Your task to perform on an android device: uninstall "Airtel Thanks" Image 0: 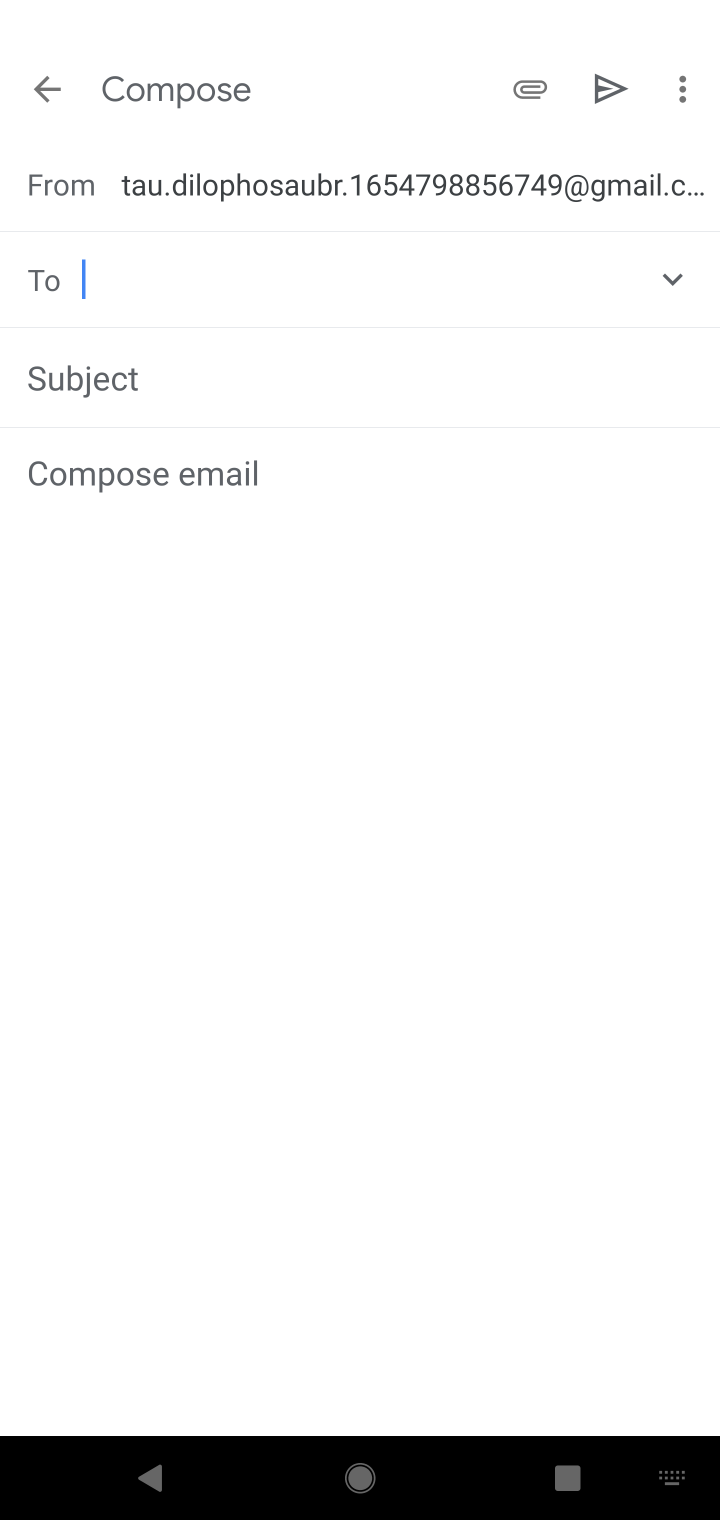
Step 0: press home button
Your task to perform on an android device: uninstall "Airtel Thanks" Image 1: 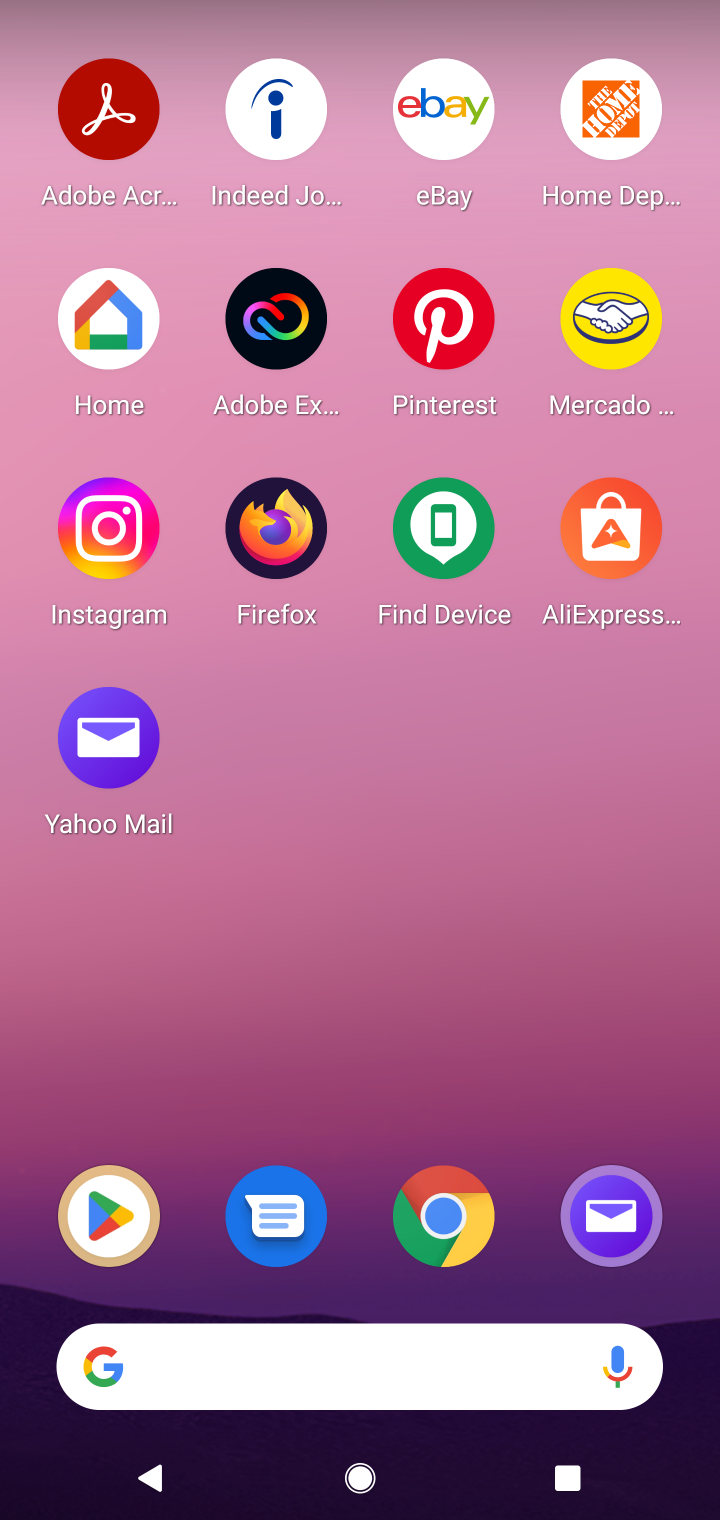
Step 1: drag from (373, 1313) to (379, 140)
Your task to perform on an android device: uninstall "Airtel Thanks" Image 2: 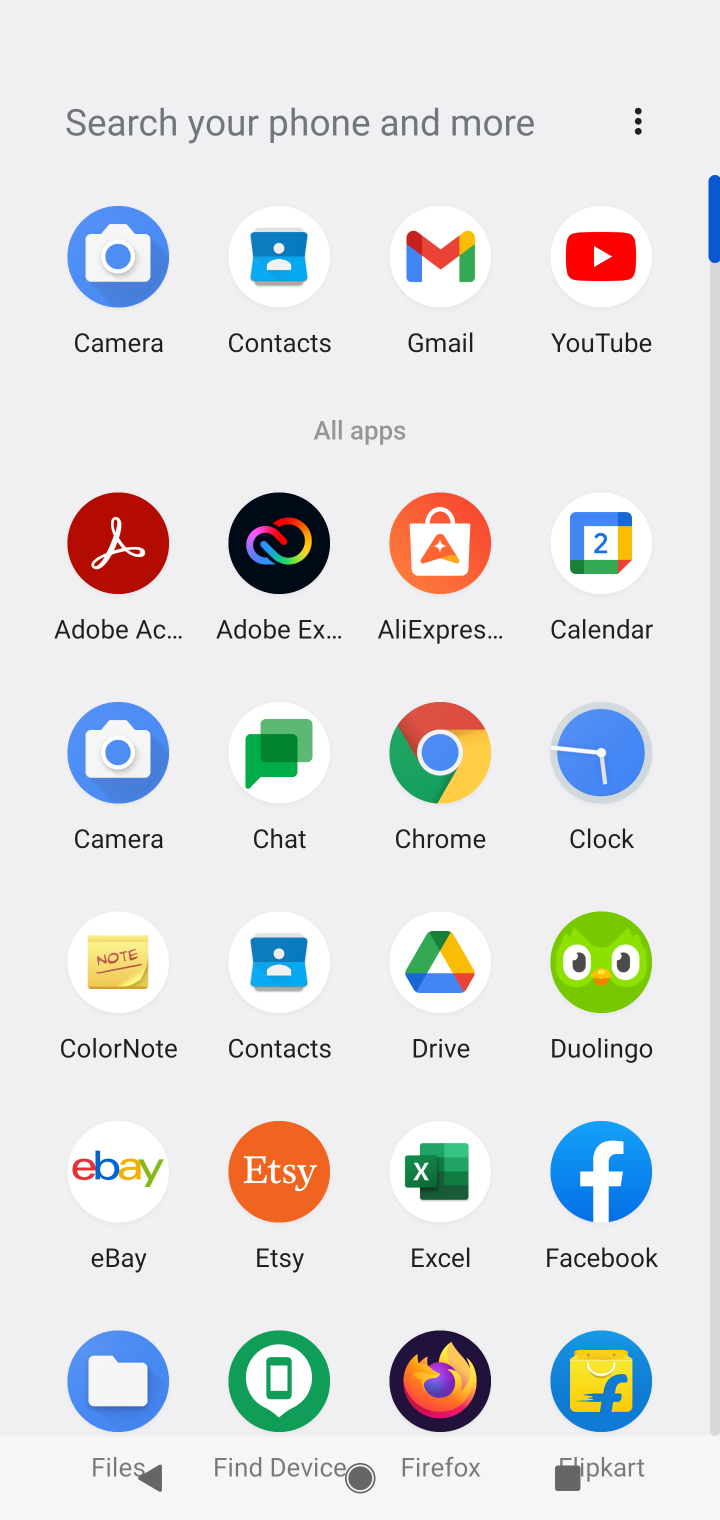
Step 2: click (461, 144)
Your task to perform on an android device: uninstall "Airtel Thanks" Image 3: 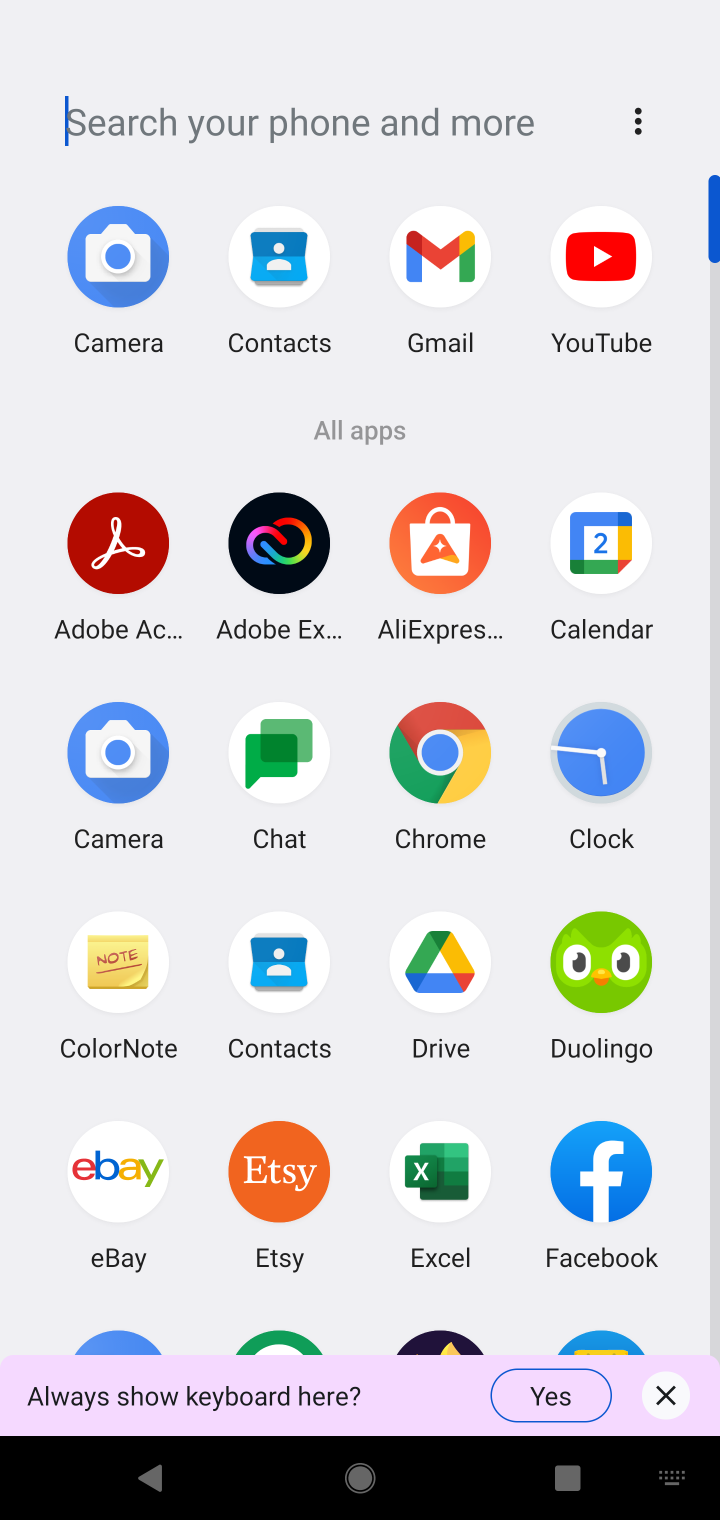
Step 3: type "airtel"
Your task to perform on an android device: uninstall "Airtel Thanks" Image 4: 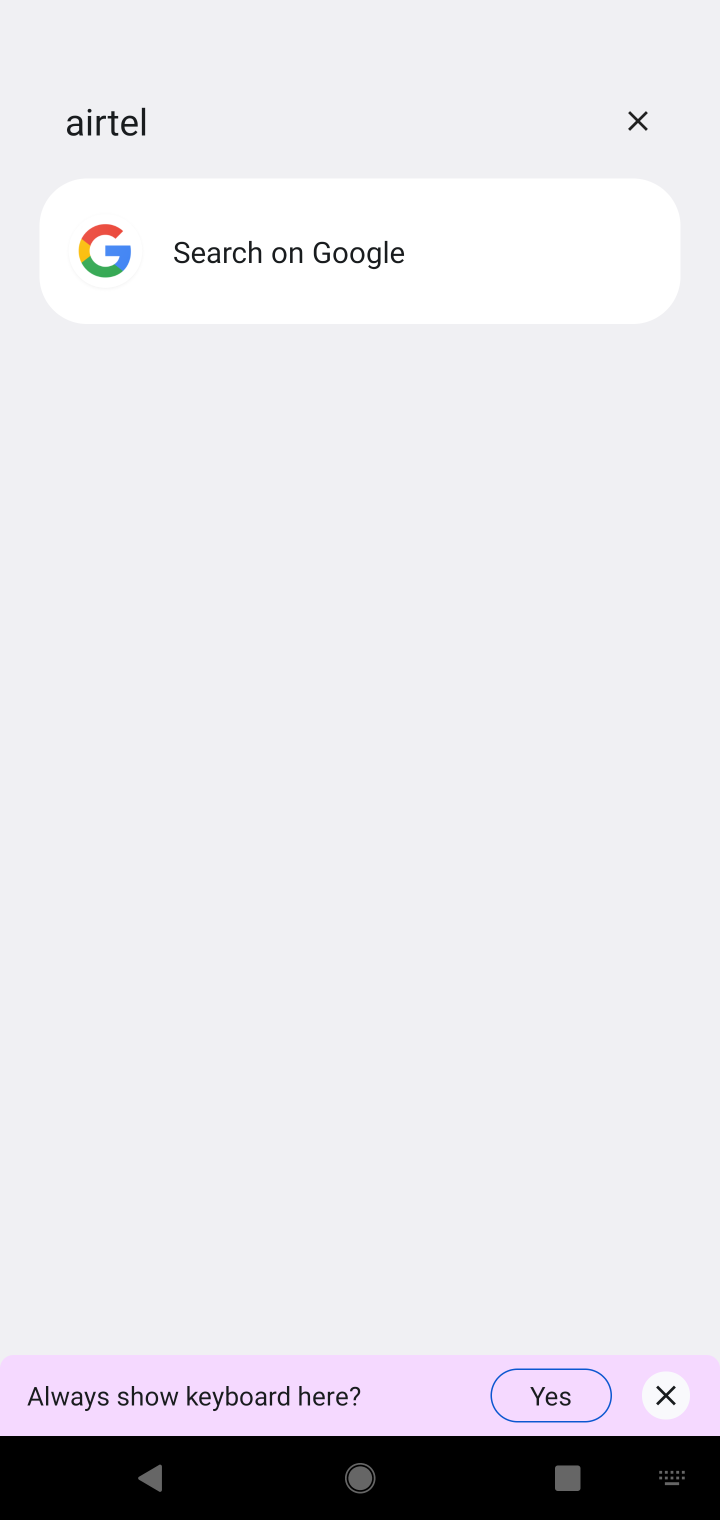
Step 4: task complete